Your task to perform on an android device: Show me popular videos on Youtube Image 0: 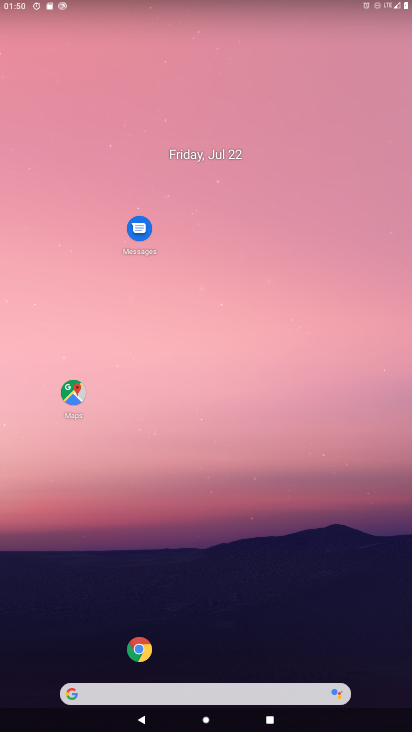
Step 0: drag from (66, 553) to (219, 15)
Your task to perform on an android device: Show me popular videos on Youtube Image 1: 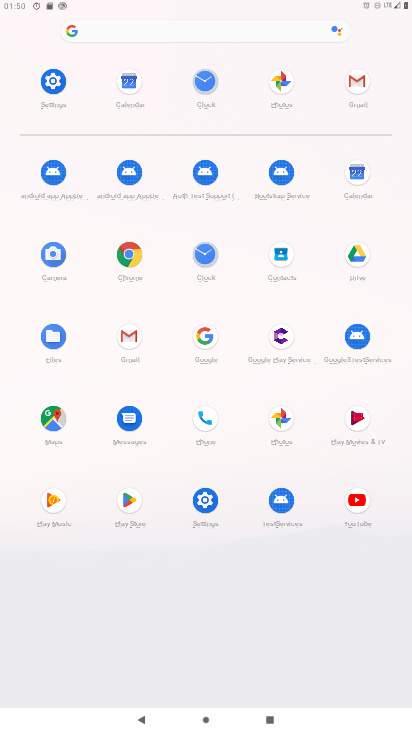
Step 1: click (364, 502)
Your task to perform on an android device: Show me popular videos on Youtube Image 2: 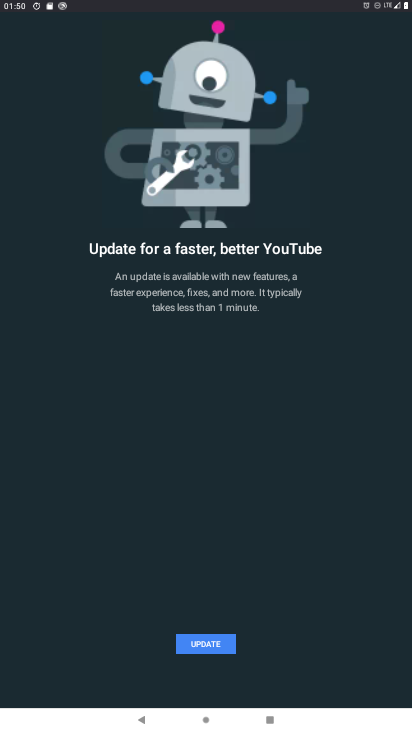
Step 2: task complete